Your task to perform on an android device: check android version Image 0: 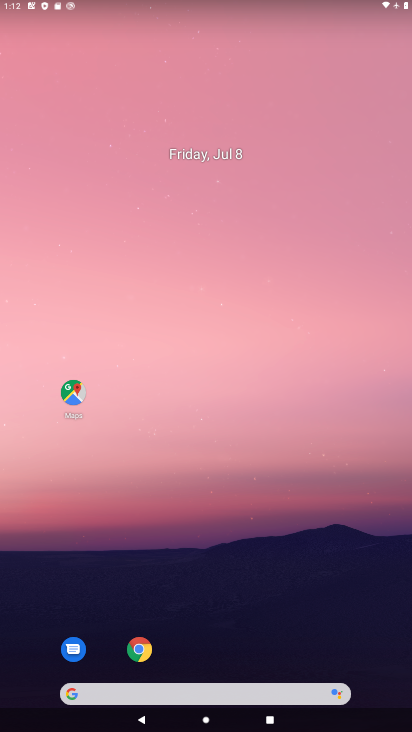
Step 0: click (163, 691)
Your task to perform on an android device: check android version Image 1: 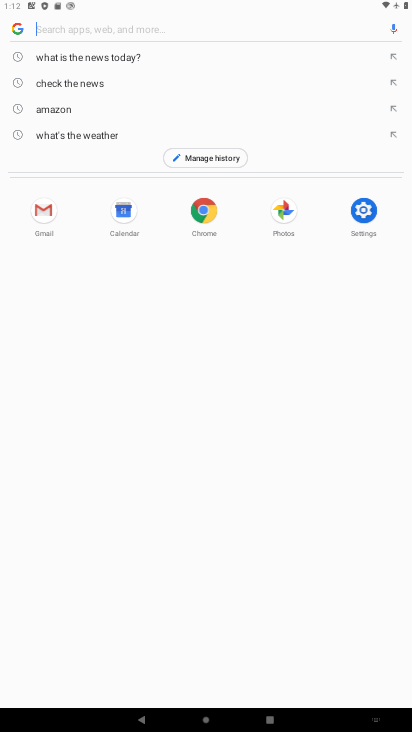
Step 1: press home button
Your task to perform on an android device: check android version Image 2: 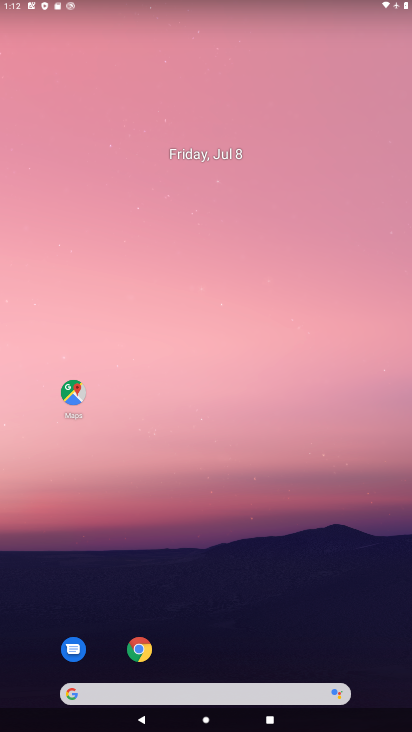
Step 2: drag from (40, 686) to (233, 190)
Your task to perform on an android device: check android version Image 3: 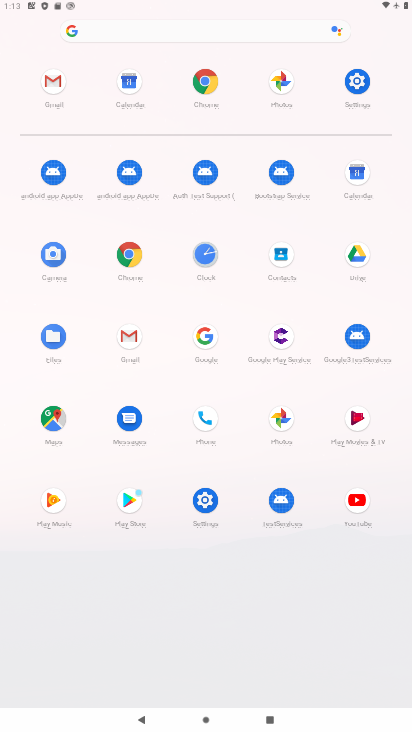
Step 3: click (192, 498)
Your task to perform on an android device: check android version Image 4: 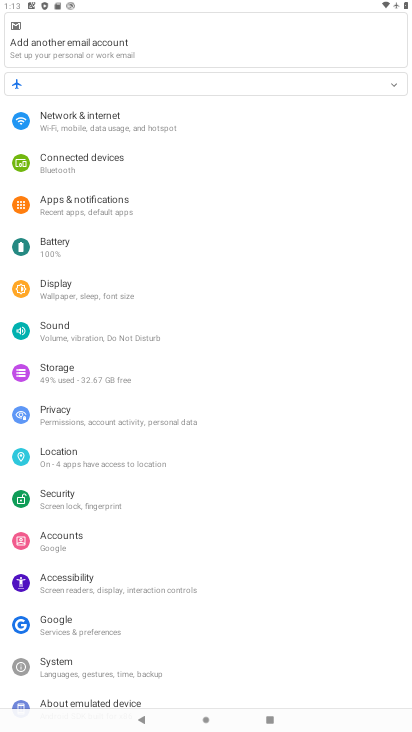
Step 4: drag from (141, 654) to (210, 313)
Your task to perform on an android device: check android version Image 5: 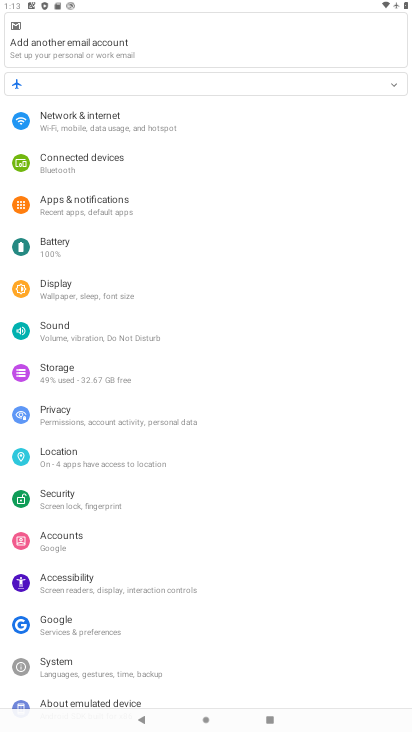
Step 5: drag from (245, 670) to (266, 331)
Your task to perform on an android device: check android version Image 6: 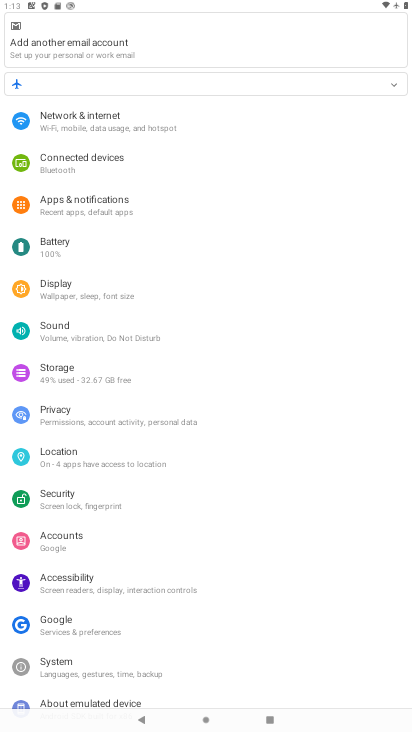
Step 6: drag from (361, 688) to (312, 277)
Your task to perform on an android device: check android version Image 7: 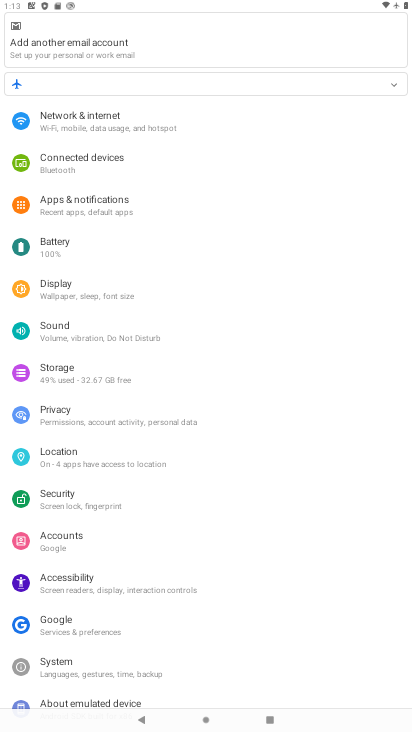
Step 7: drag from (329, 684) to (250, 6)
Your task to perform on an android device: check android version Image 8: 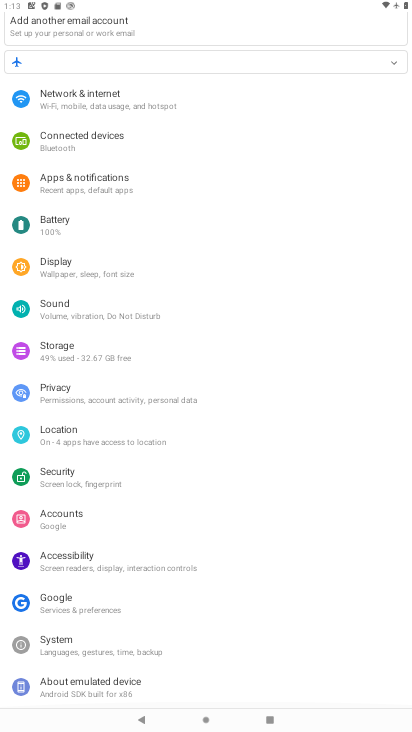
Step 8: drag from (178, 698) to (245, 51)
Your task to perform on an android device: check android version Image 9: 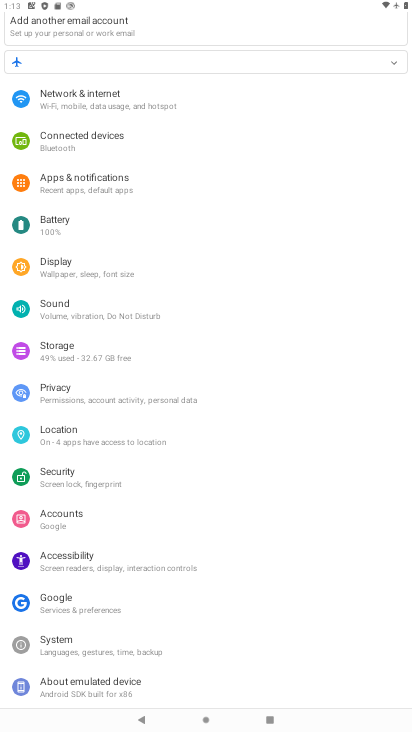
Step 9: drag from (337, 696) to (310, 177)
Your task to perform on an android device: check android version Image 10: 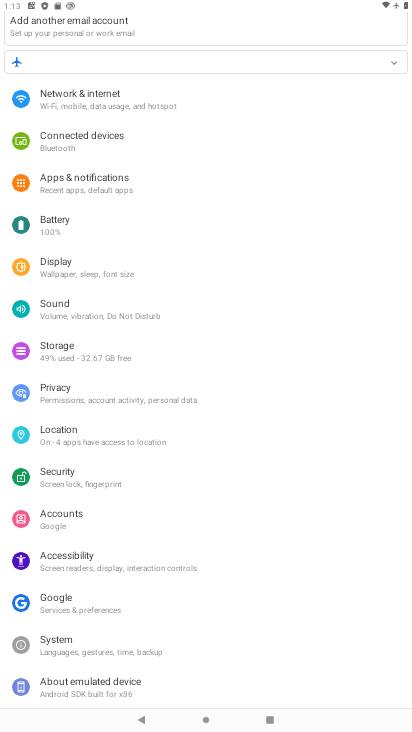
Step 10: click (46, 679)
Your task to perform on an android device: check android version Image 11: 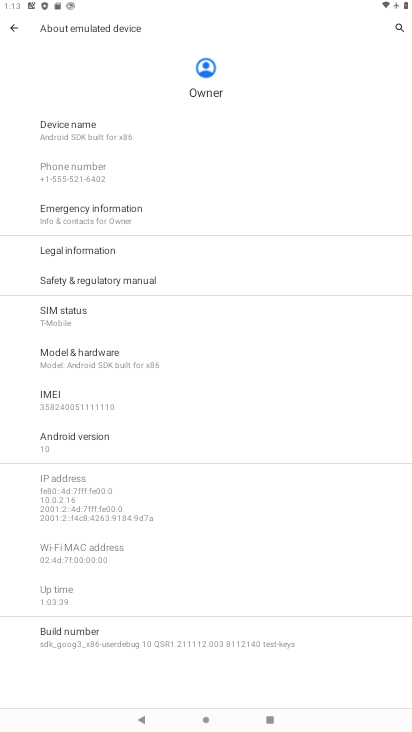
Step 11: task complete